Your task to perform on an android device: Open calendar and show me the first week of next month Image 0: 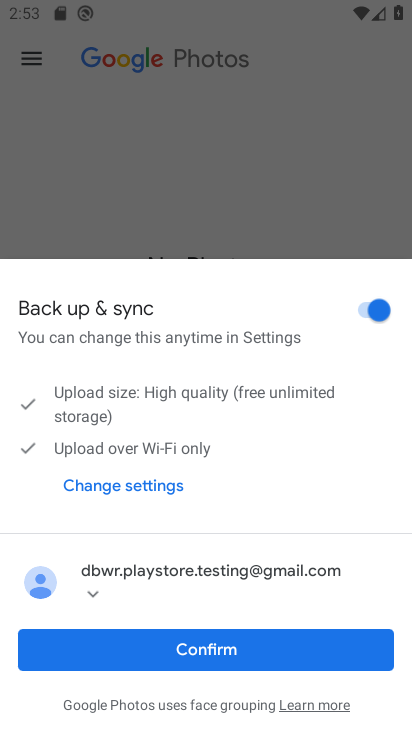
Step 0: press home button
Your task to perform on an android device: Open calendar and show me the first week of next month Image 1: 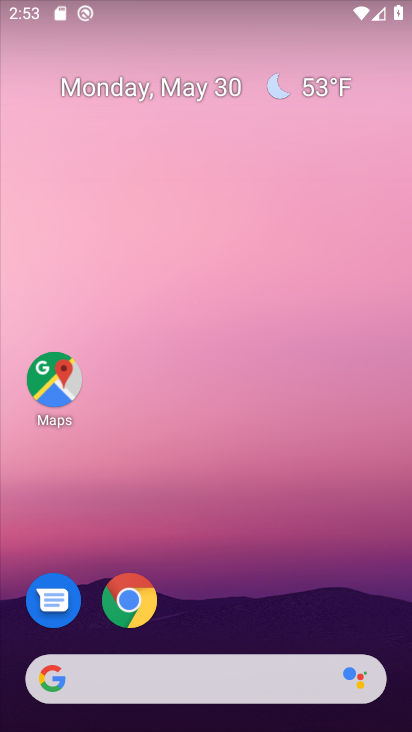
Step 1: drag from (316, 536) to (337, 99)
Your task to perform on an android device: Open calendar and show me the first week of next month Image 2: 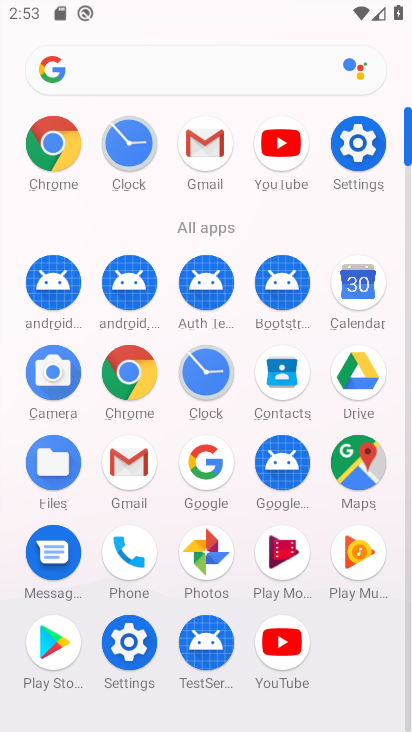
Step 2: click (380, 290)
Your task to perform on an android device: Open calendar and show me the first week of next month Image 3: 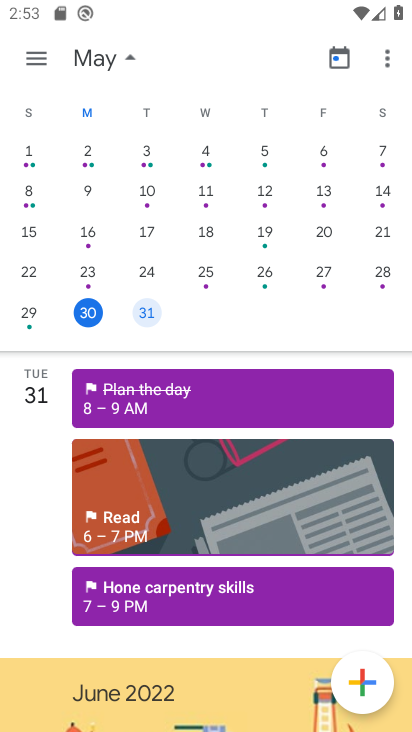
Step 3: task complete